Your task to perform on an android device: add a contact in the contacts app Image 0: 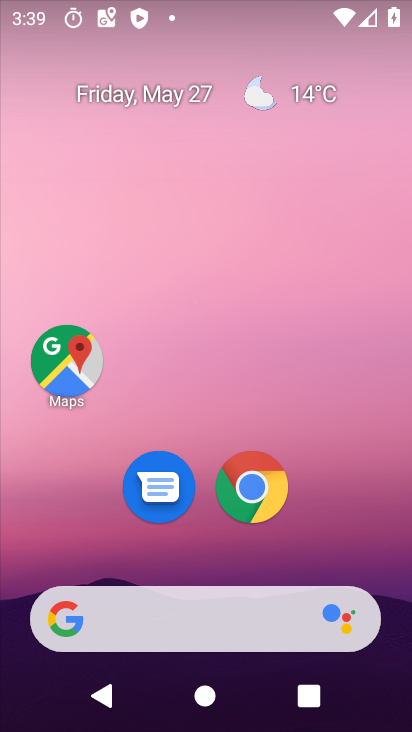
Step 0: drag from (313, 459) to (326, 82)
Your task to perform on an android device: add a contact in the contacts app Image 1: 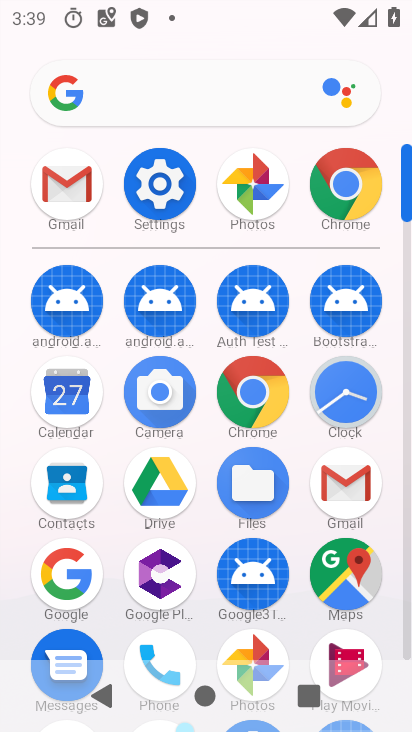
Step 1: click (74, 390)
Your task to perform on an android device: add a contact in the contacts app Image 2: 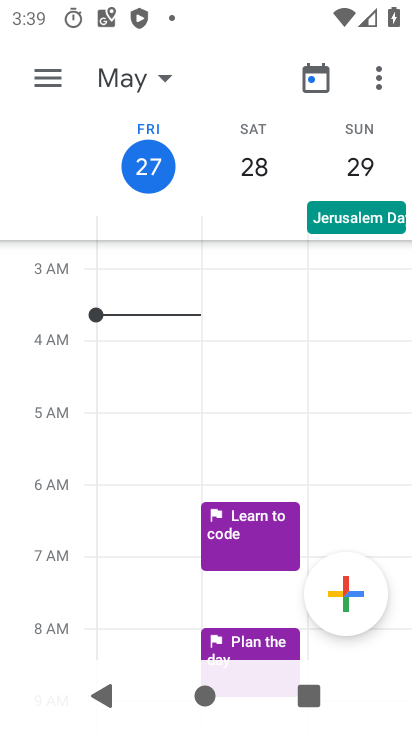
Step 2: press home button
Your task to perform on an android device: add a contact in the contacts app Image 3: 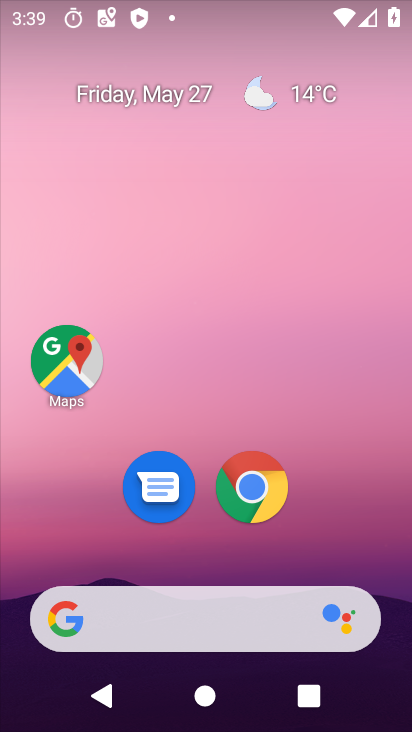
Step 3: drag from (361, 492) to (277, 97)
Your task to perform on an android device: add a contact in the contacts app Image 4: 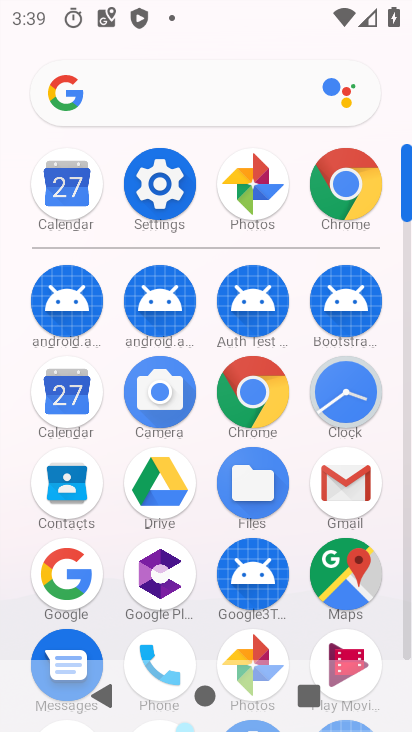
Step 4: click (68, 494)
Your task to perform on an android device: add a contact in the contacts app Image 5: 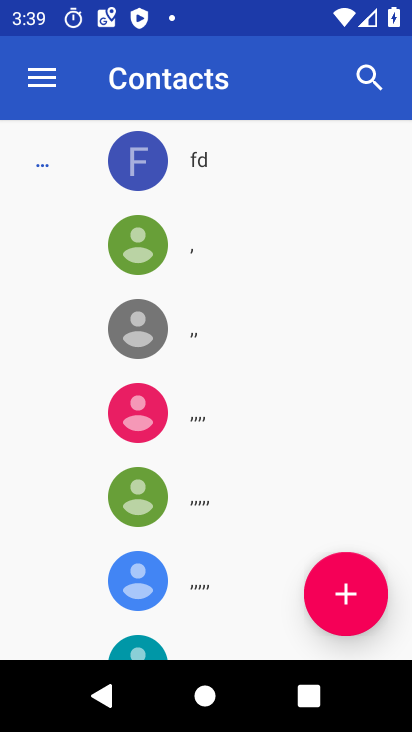
Step 5: click (356, 607)
Your task to perform on an android device: add a contact in the contacts app Image 6: 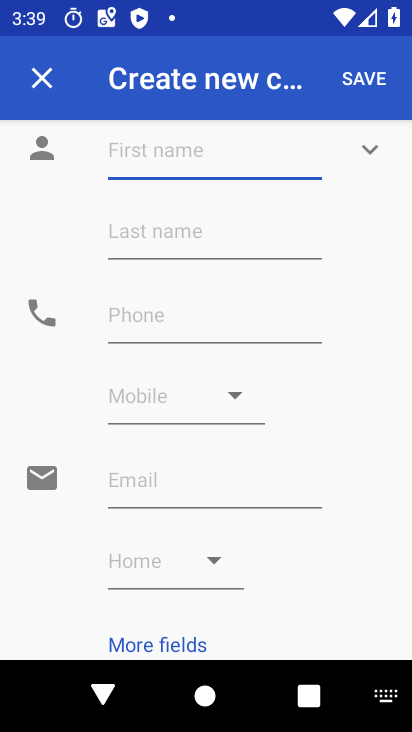
Step 6: type "phase"
Your task to perform on an android device: add a contact in the contacts app Image 7: 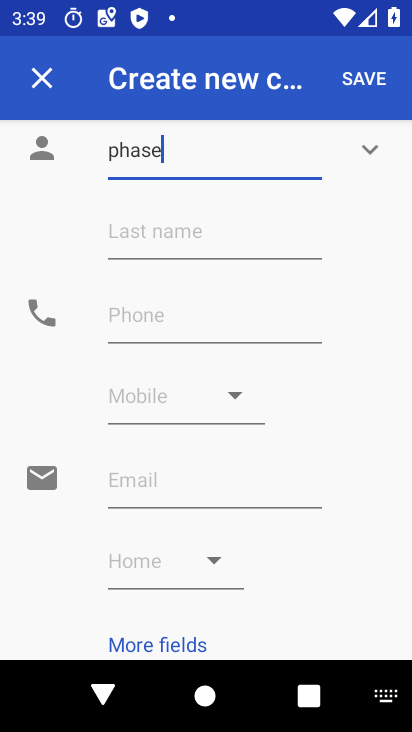
Step 7: click (346, 76)
Your task to perform on an android device: add a contact in the contacts app Image 8: 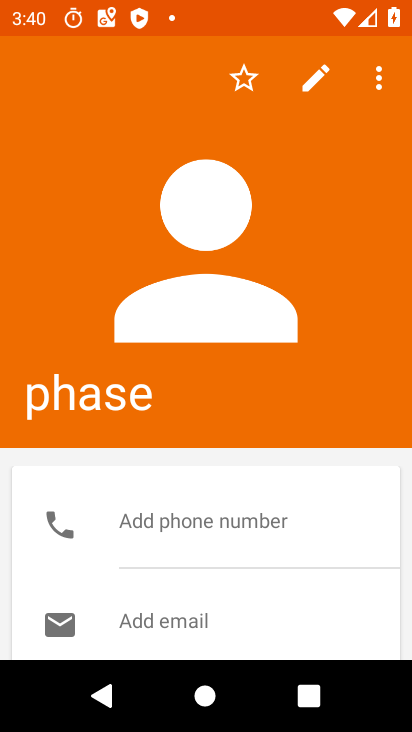
Step 8: task complete